Your task to perform on an android device: Open Google Maps Image 0: 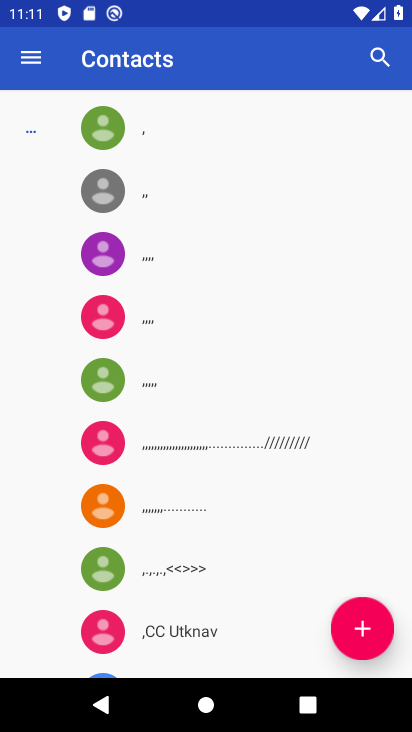
Step 0: press home button
Your task to perform on an android device: Open Google Maps Image 1: 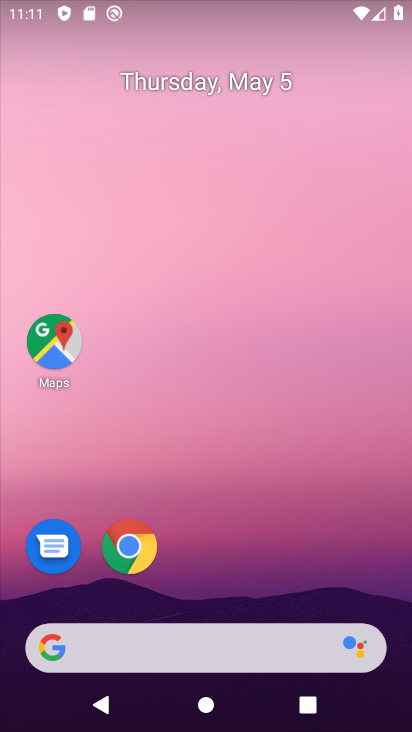
Step 1: click (58, 366)
Your task to perform on an android device: Open Google Maps Image 2: 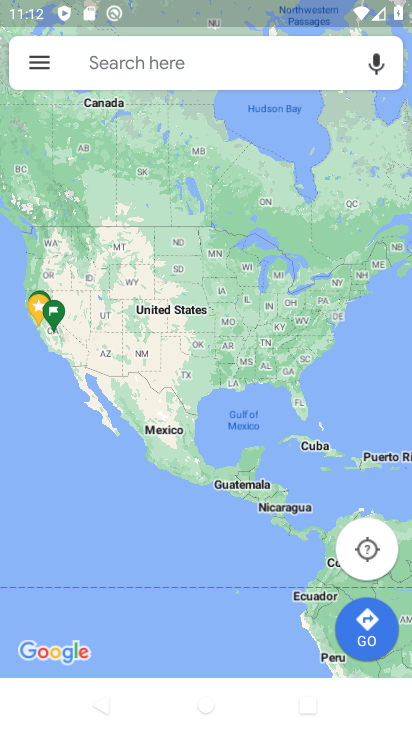
Step 2: task complete